Your task to perform on an android device: turn notification dots off Image 0: 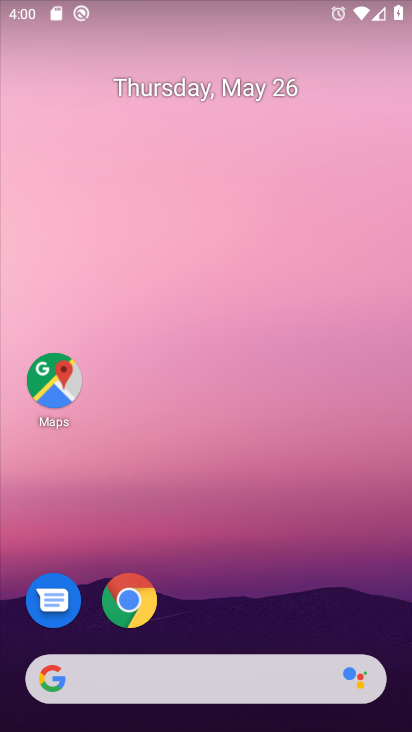
Step 0: drag from (207, 617) to (277, 110)
Your task to perform on an android device: turn notification dots off Image 1: 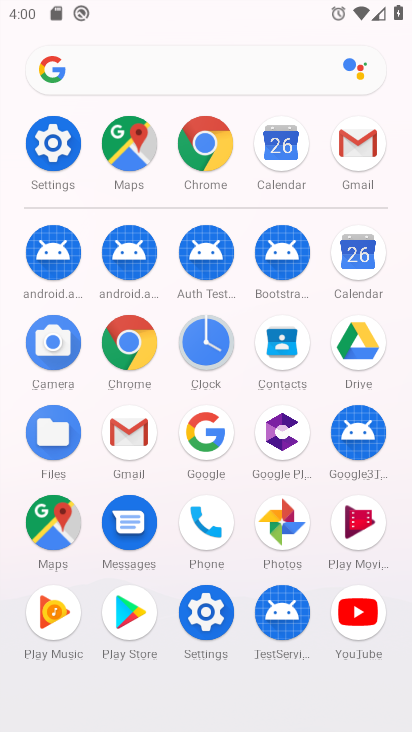
Step 1: click (49, 149)
Your task to perform on an android device: turn notification dots off Image 2: 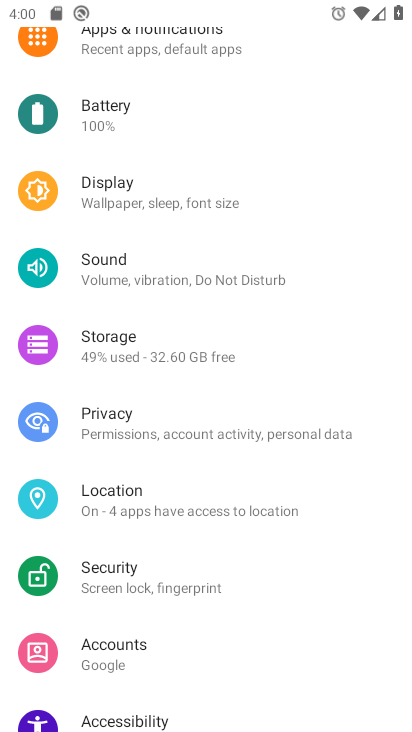
Step 2: drag from (280, 196) to (257, 353)
Your task to perform on an android device: turn notification dots off Image 3: 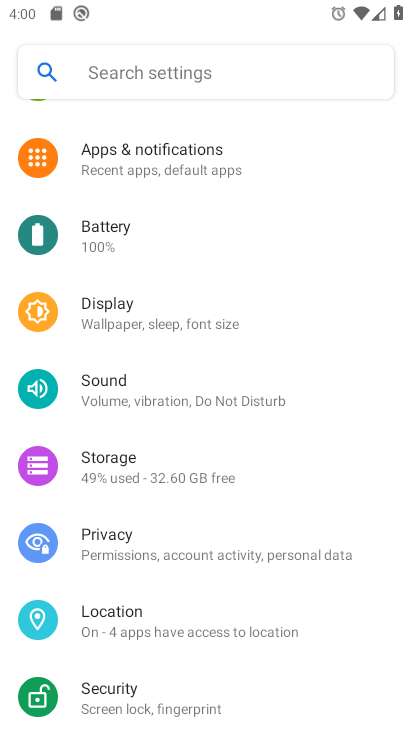
Step 3: click (193, 173)
Your task to perform on an android device: turn notification dots off Image 4: 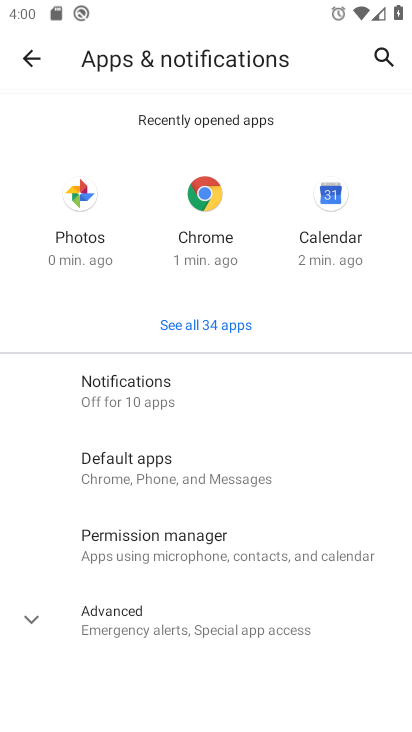
Step 4: click (148, 401)
Your task to perform on an android device: turn notification dots off Image 5: 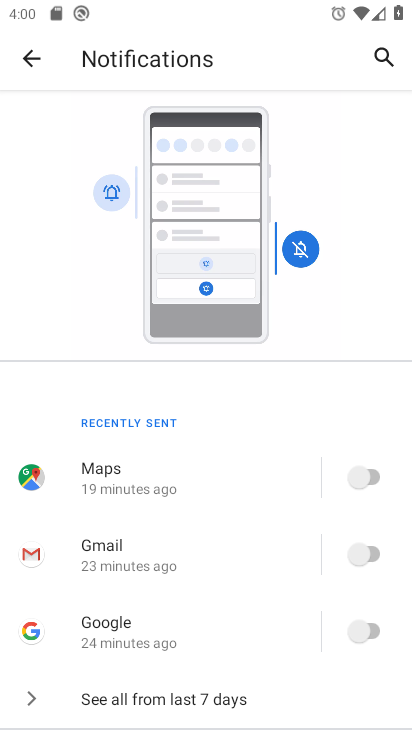
Step 5: drag from (120, 584) to (143, 426)
Your task to perform on an android device: turn notification dots off Image 6: 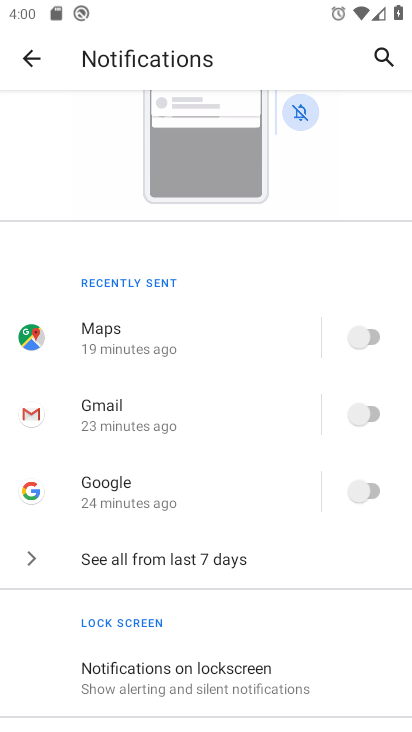
Step 6: drag from (106, 659) to (130, 465)
Your task to perform on an android device: turn notification dots off Image 7: 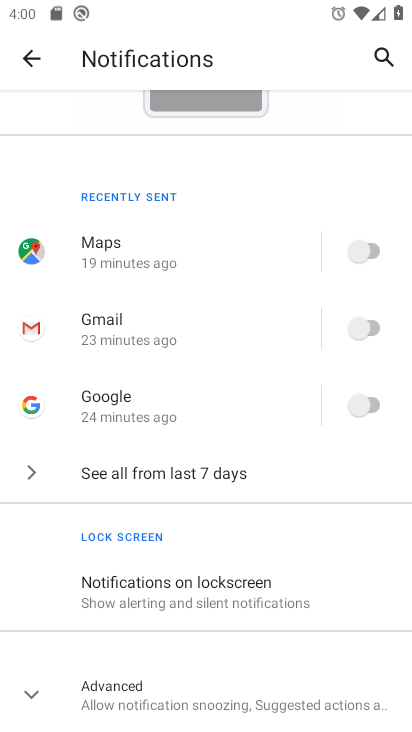
Step 7: click (123, 688)
Your task to perform on an android device: turn notification dots off Image 8: 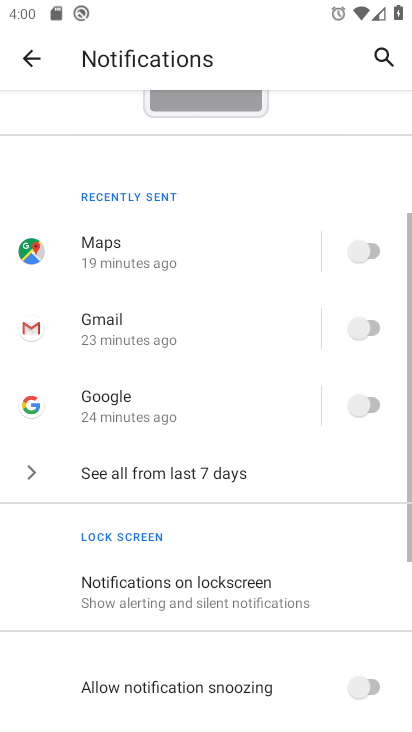
Step 8: task complete